Your task to perform on an android device: Add "jbl charge 4" to the cart on ebay.com, then select checkout. Image 0: 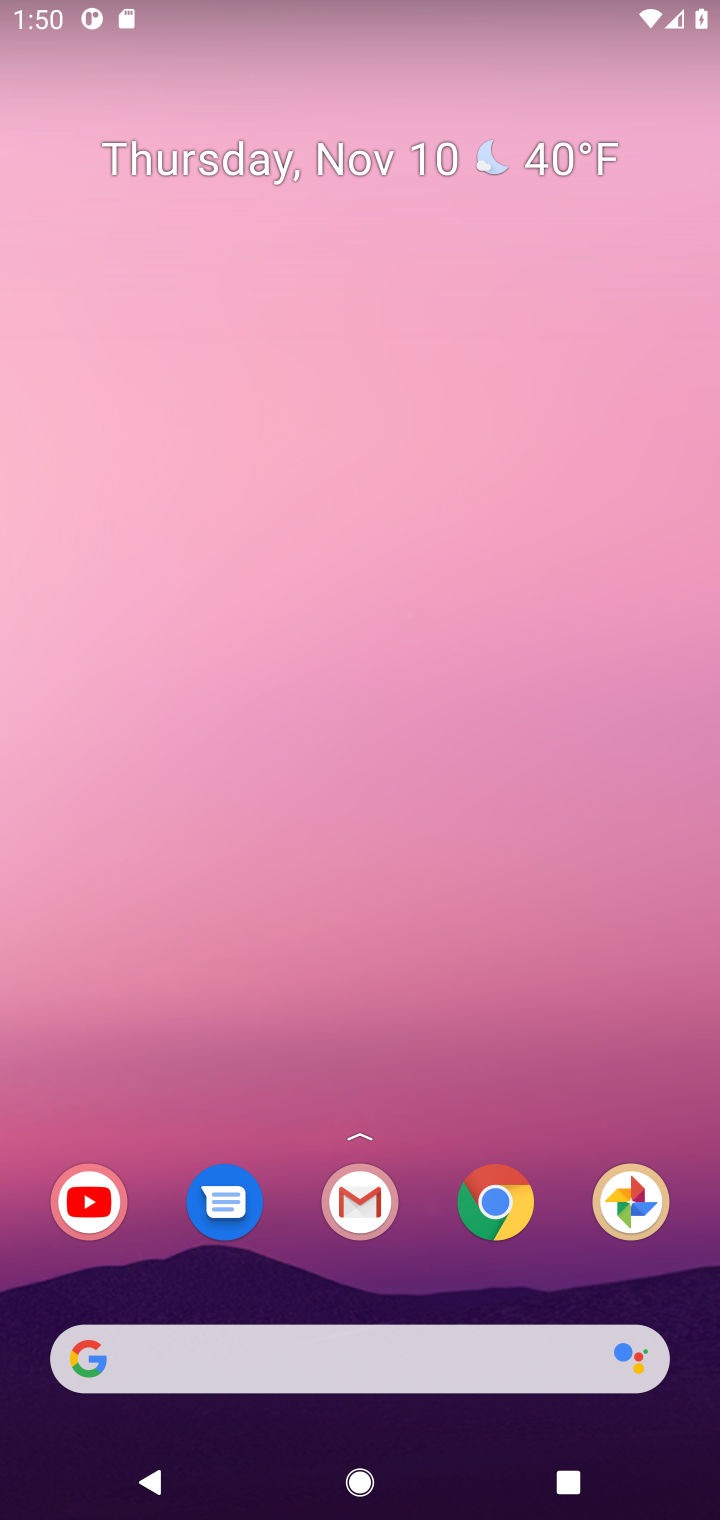
Step 0: press home button
Your task to perform on an android device: Add "jbl charge 4" to the cart on ebay.com, then select checkout. Image 1: 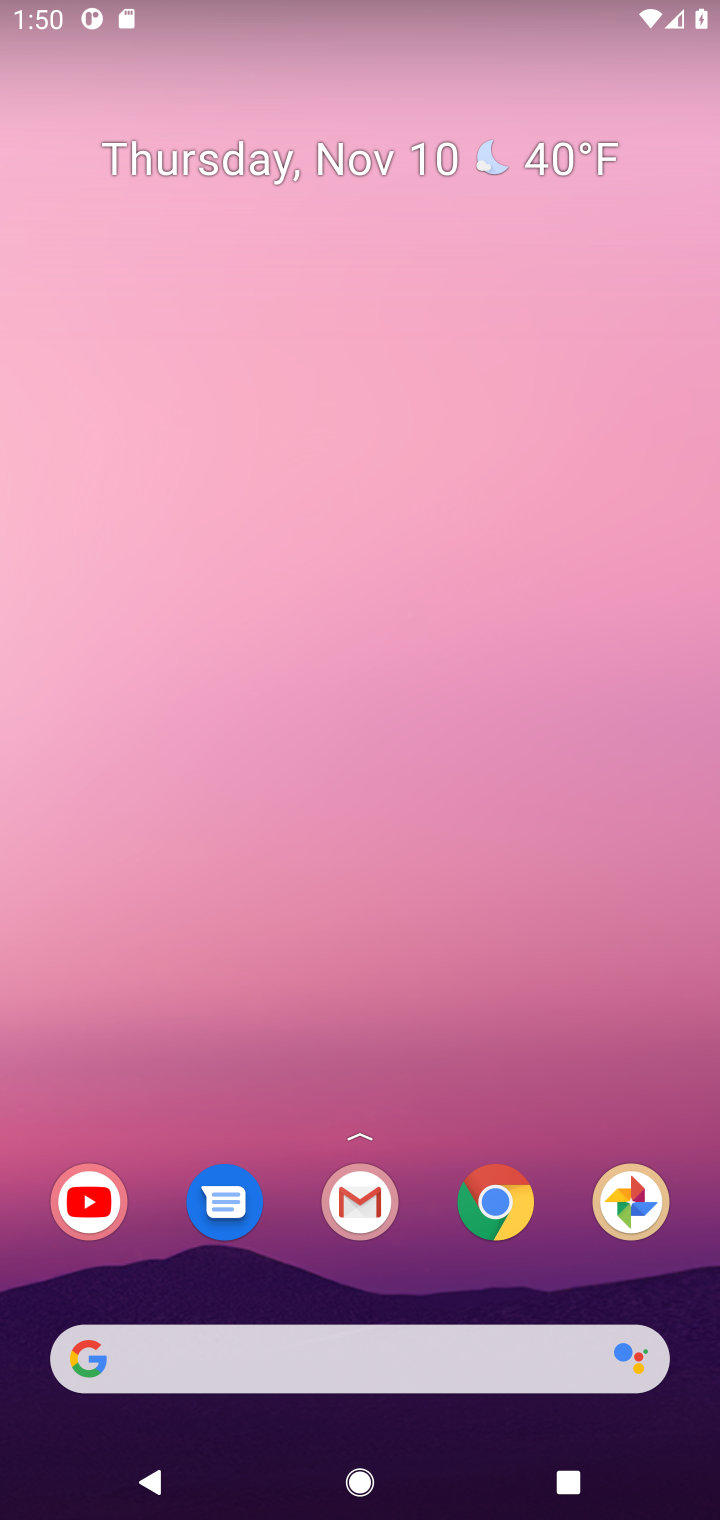
Step 1: click (499, 1201)
Your task to perform on an android device: Add "jbl charge 4" to the cart on ebay.com, then select checkout. Image 2: 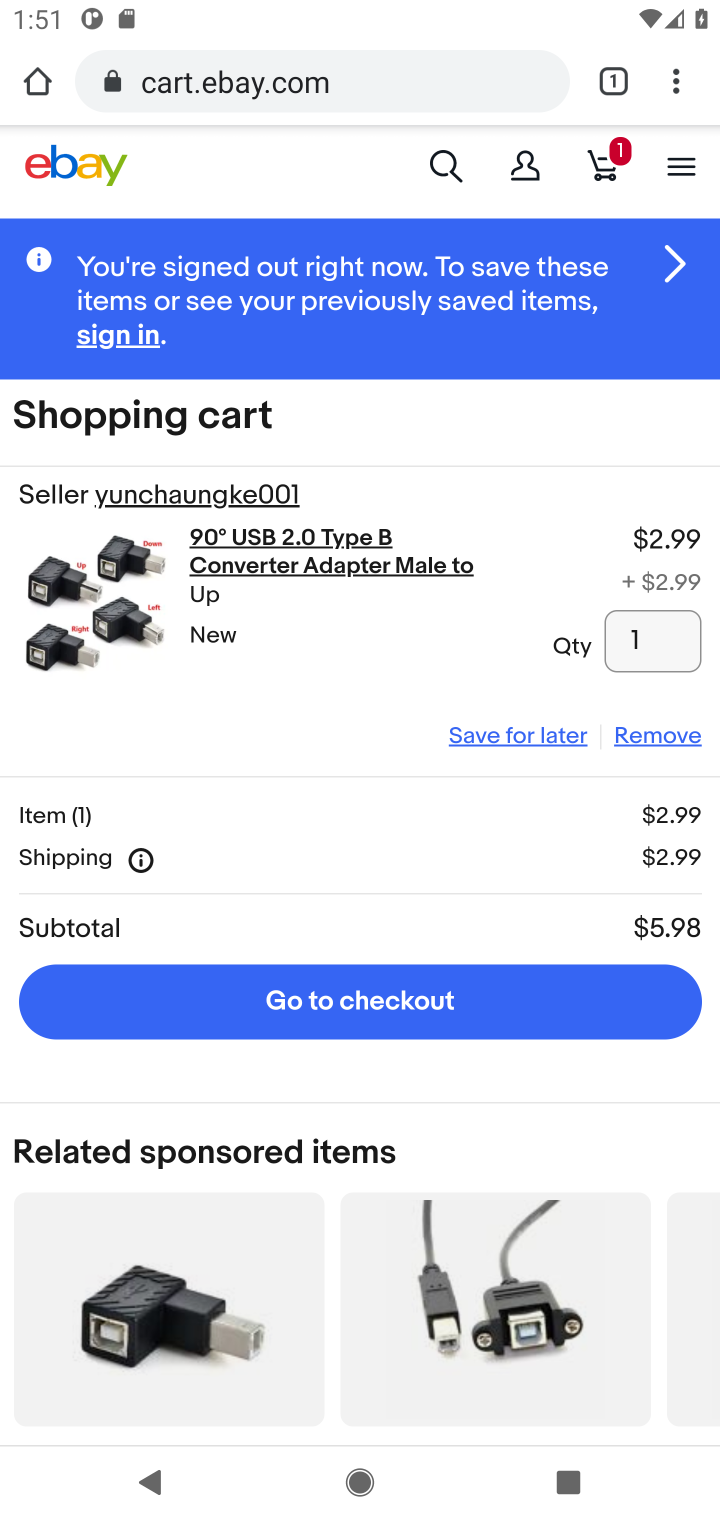
Step 2: click (444, 164)
Your task to perform on an android device: Add "jbl charge 4" to the cart on ebay.com, then select checkout. Image 3: 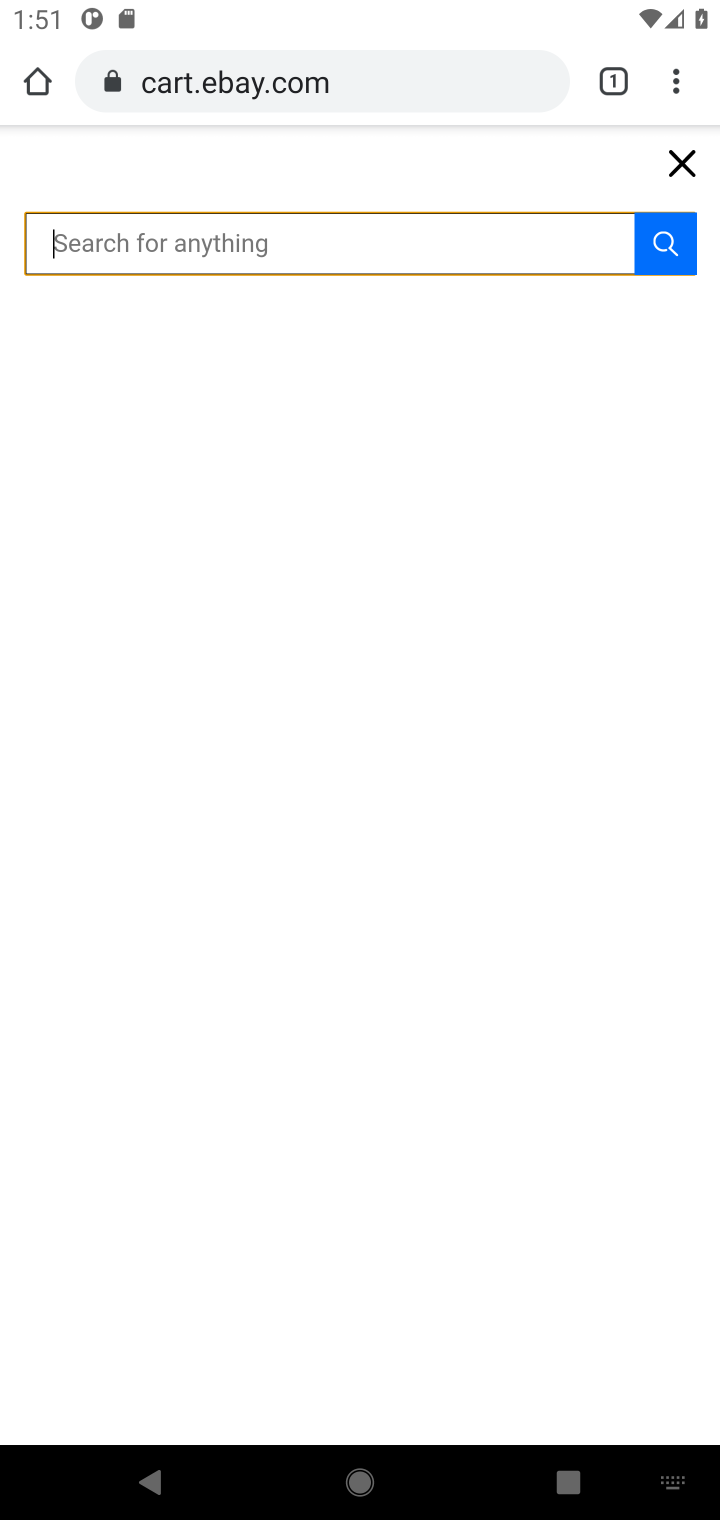
Step 3: press enter
Your task to perform on an android device: Add "jbl charge 4" to the cart on ebay.com, then select checkout. Image 4: 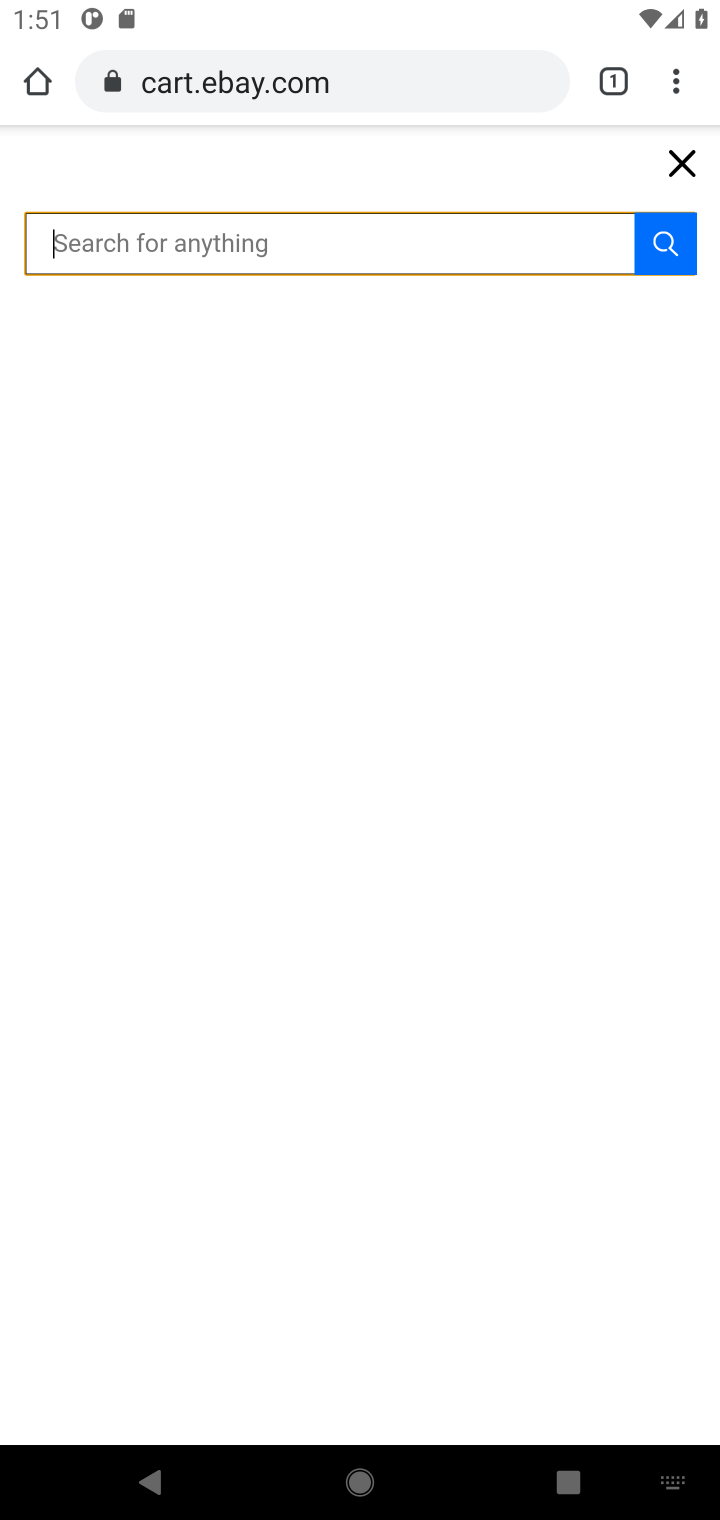
Step 4: type "jbl charge 4"
Your task to perform on an android device: Add "jbl charge 4" to the cart on ebay.com, then select checkout. Image 5: 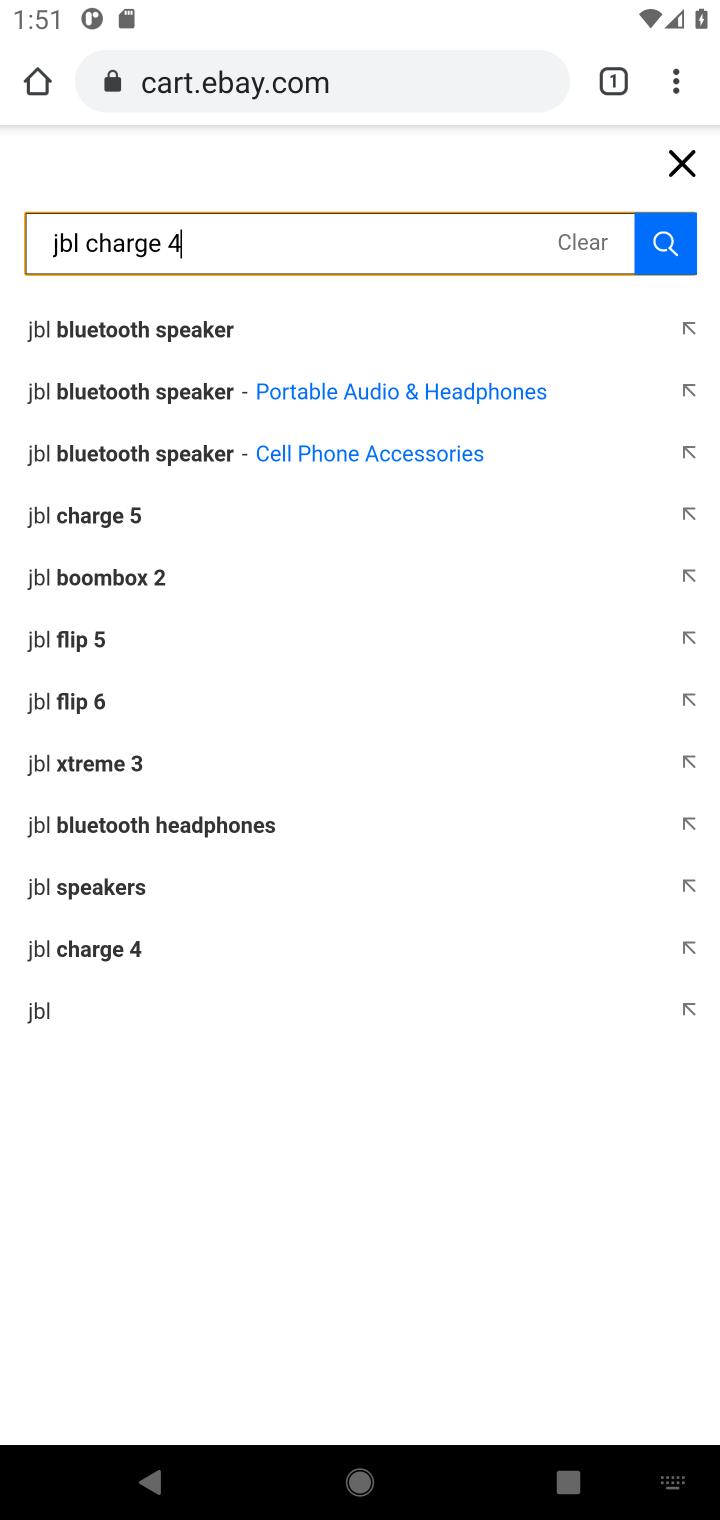
Step 5: press enter
Your task to perform on an android device: Add "jbl charge 4" to the cart on ebay.com, then select checkout. Image 6: 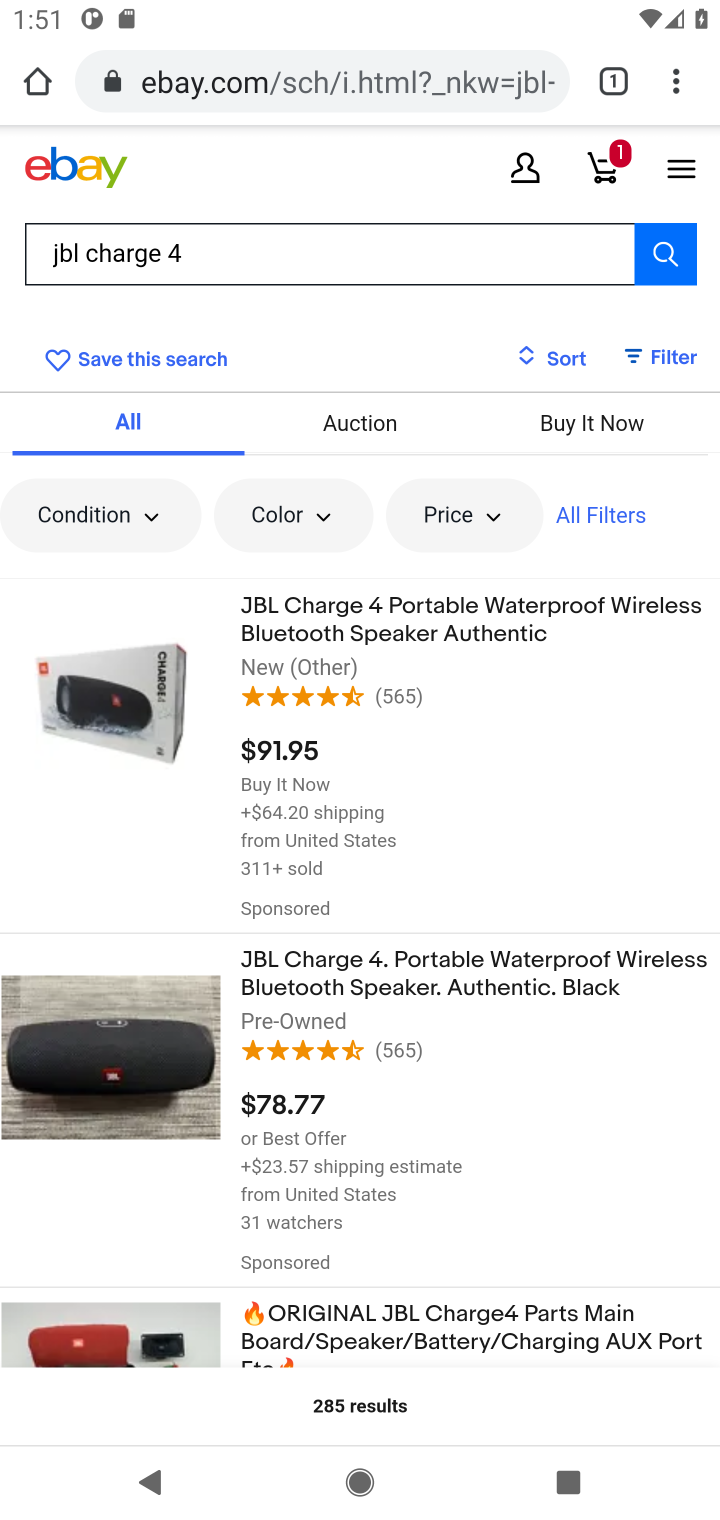
Step 6: click (428, 691)
Your task to perform on an android device: Add "jbl charge 4" to the cart on ebay.com, then select checkout. Image 7: 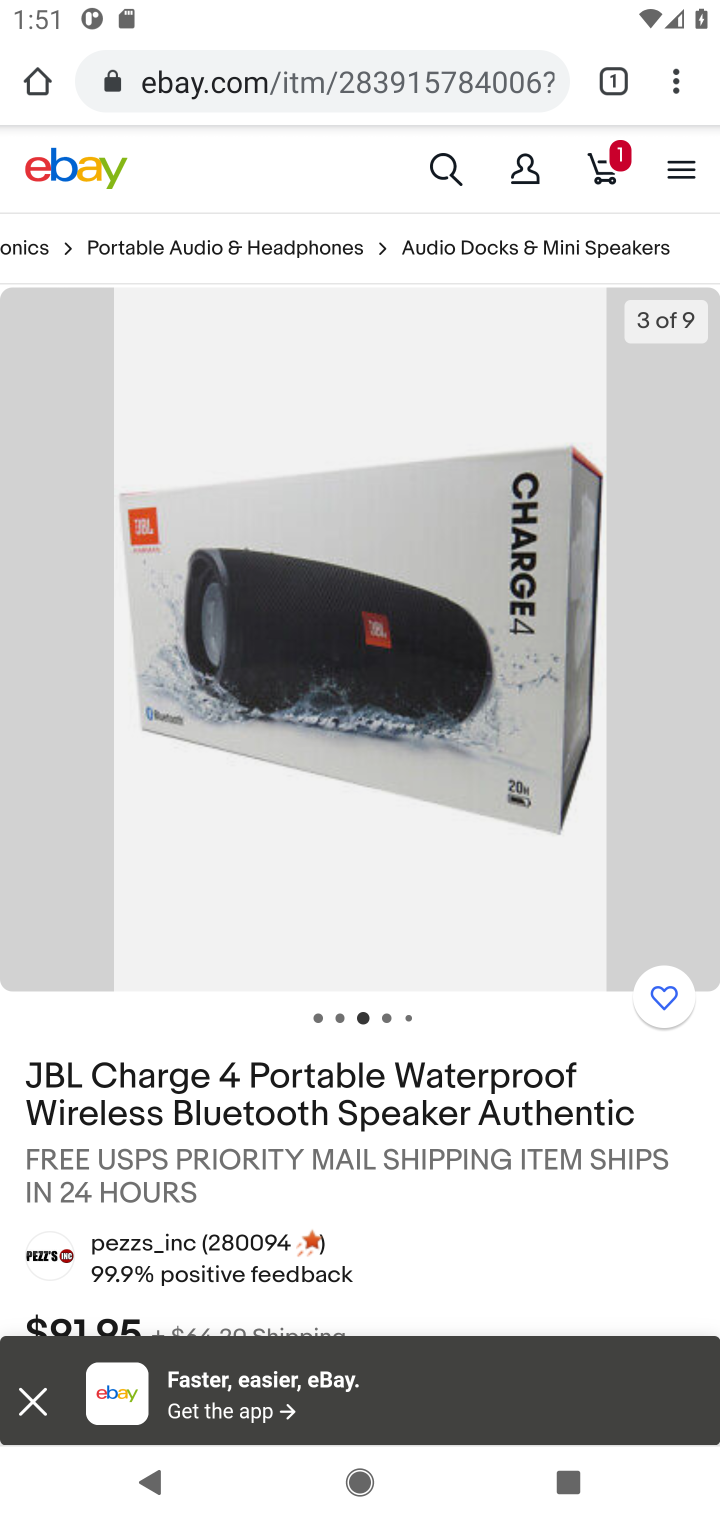
Step 7: drag from (458, 1228) to (530, 207)
Your task to perform on an android device: Add "jbl charge 4" to the cart on ebay.com, then select checkout. Image 8: 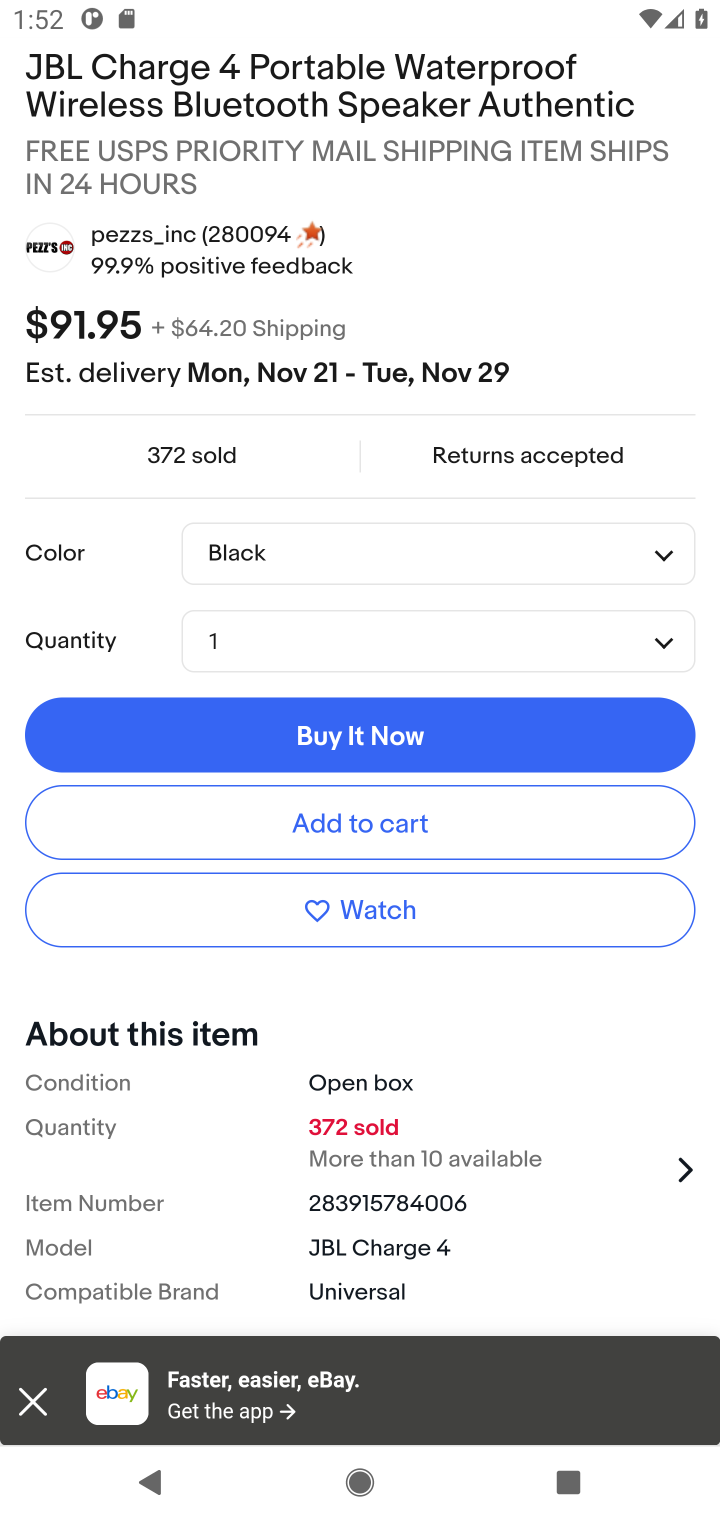
Step 8: click (357, 817)
Your task to perform on an android device: Add "jbl charge 4" to the cart on ebay.com, then select checkout. Image 9: 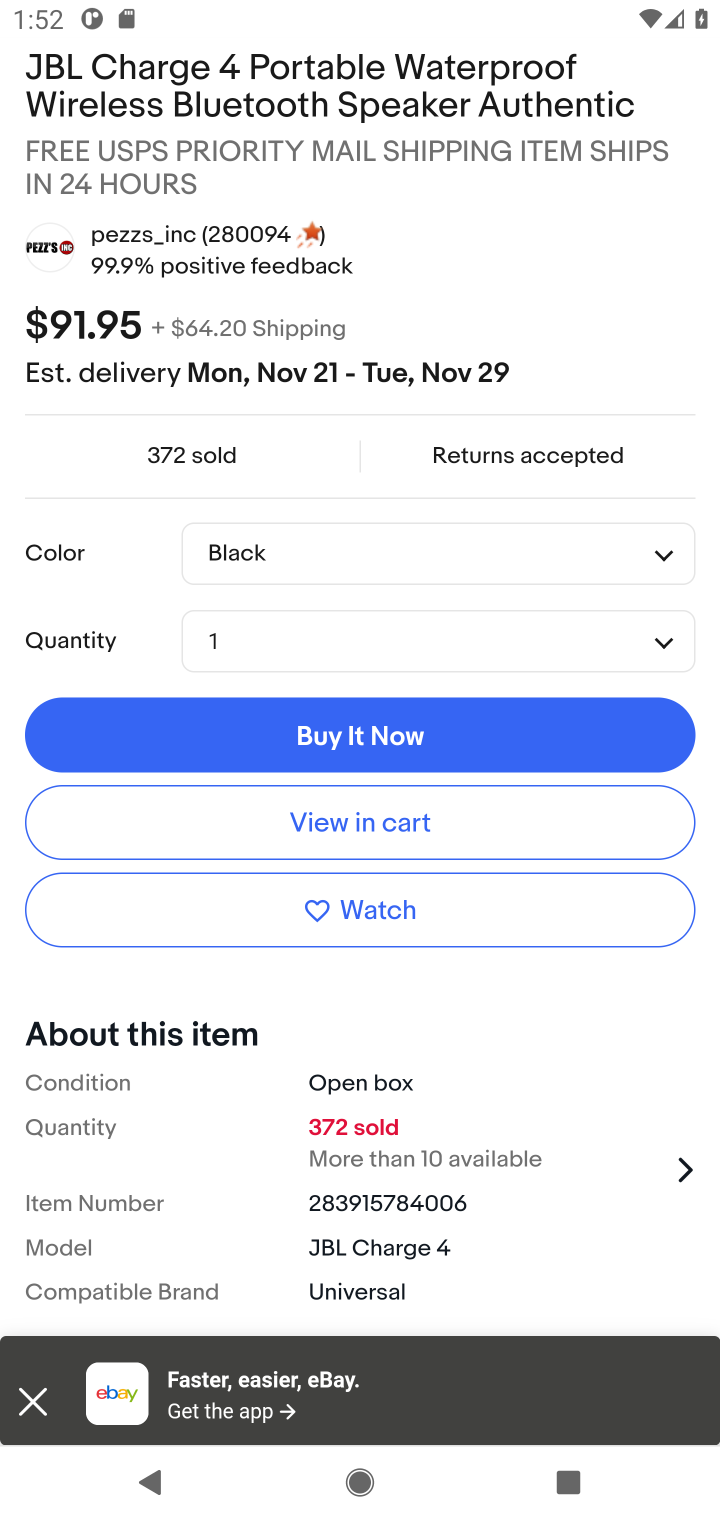
Step 9: click (346, 819)
Your task to perform on an android device: Add "jbl charge 4" to the cart on ebay.com, then select checkout. Image 10: 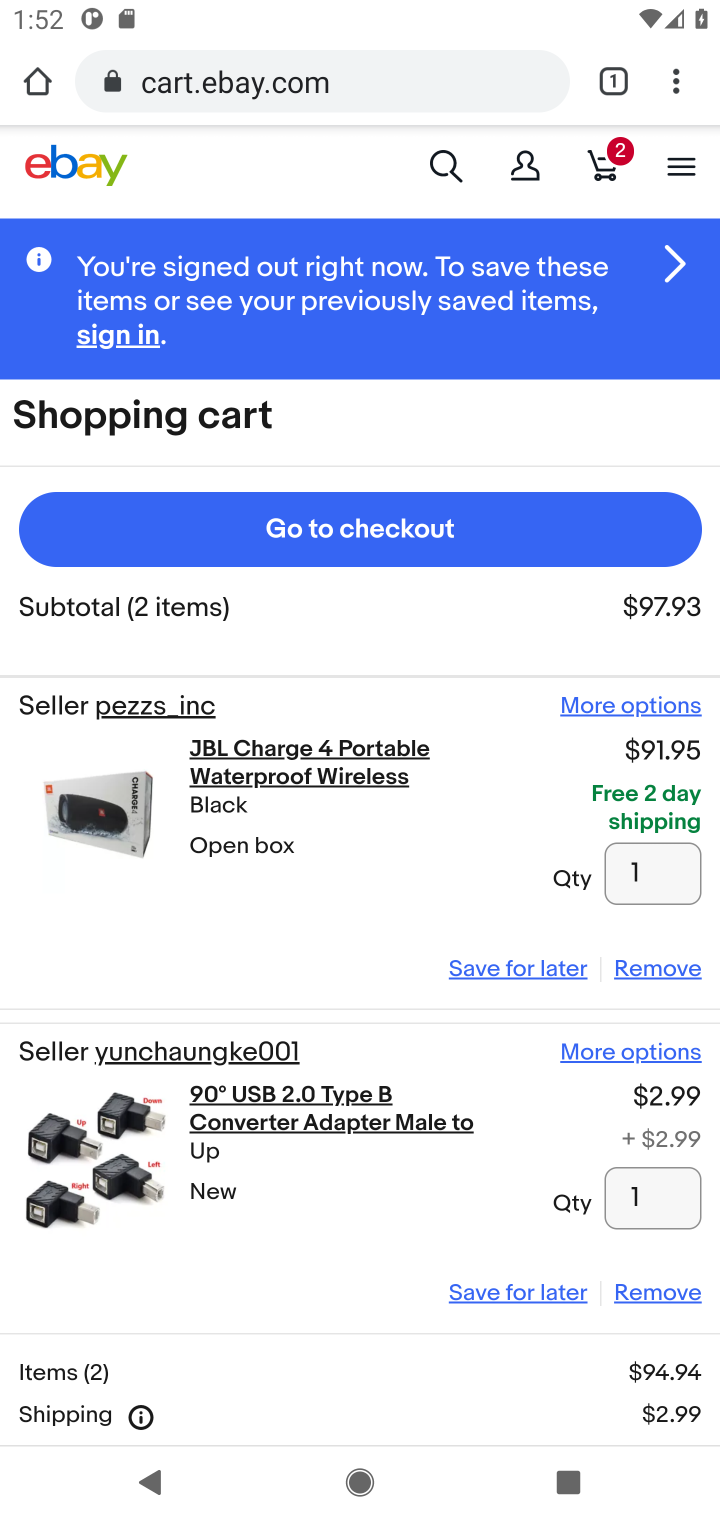
Step 10: click (680, 1285)
Your task to perform on an android device: Add "jbl charge 4" to the cart on ebay.com, then select checkout. Image 11: 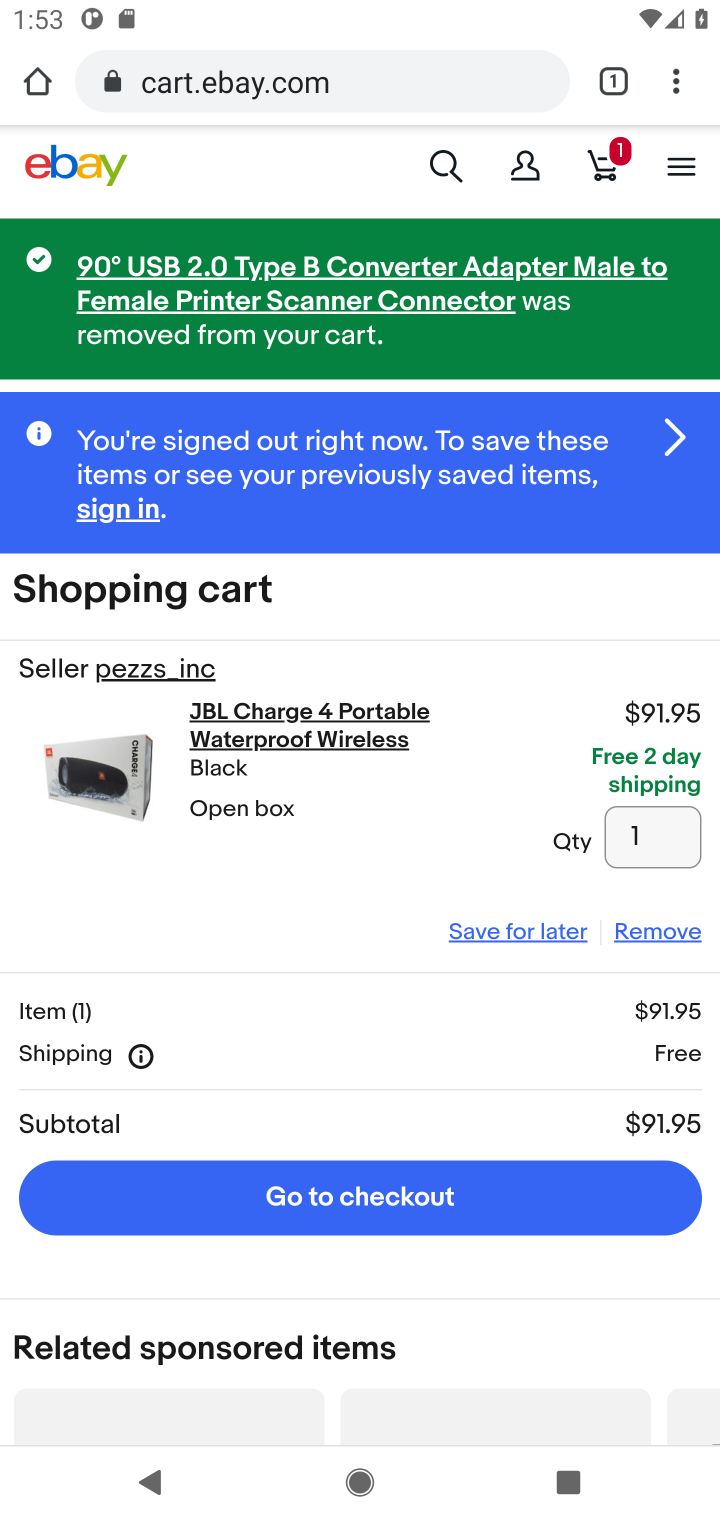
Step 11: click (399, 1182)
Your task to perform on an android device: Add "jbl charge 4" to the cart on ebay.com, then select checkout. Image 12: 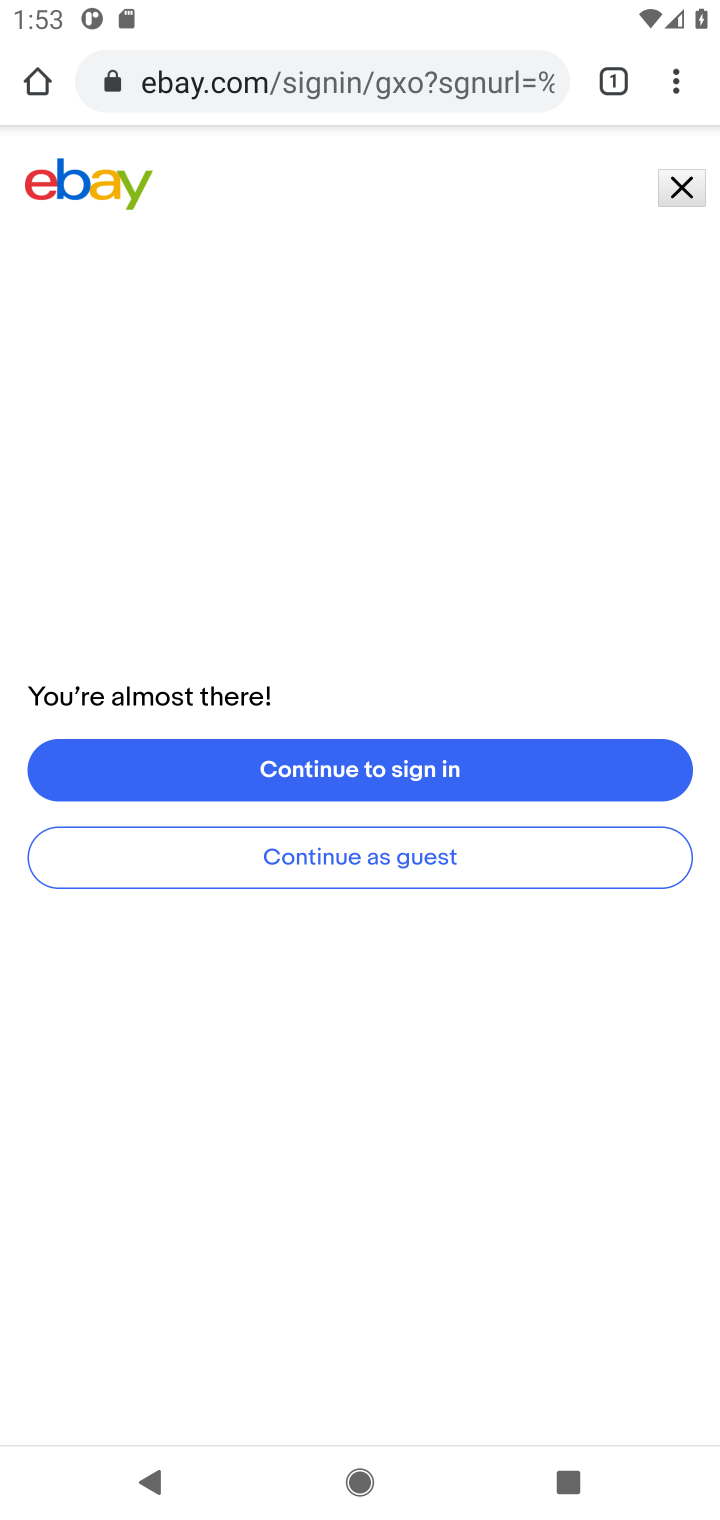
Step 12: task complete